Your task to perform on an android device: set the stopwatch Image 0: 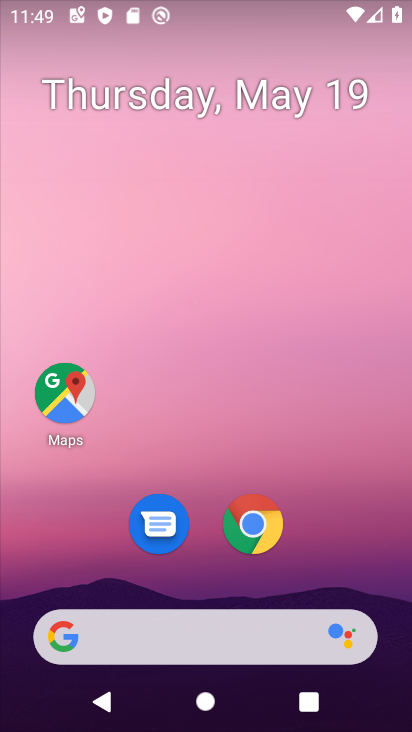
Step 0: drag from (236, 417) to (234, 55)
Your task to perform on an android device: set the stopwatch Image 1: 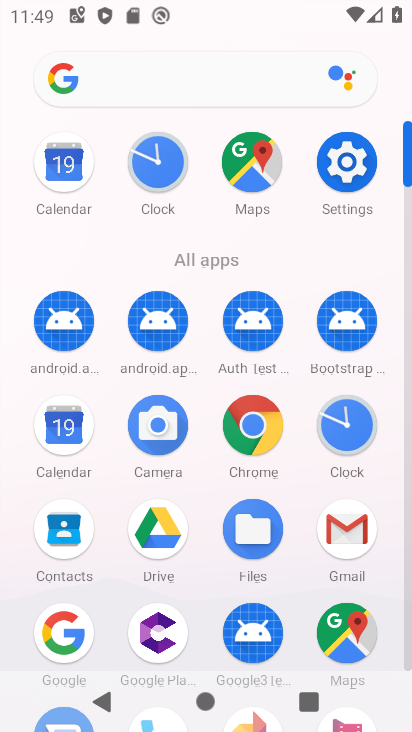
Step 1: click (165, 168)
Your task to perform on an android device: set the stopwatch Image 2: 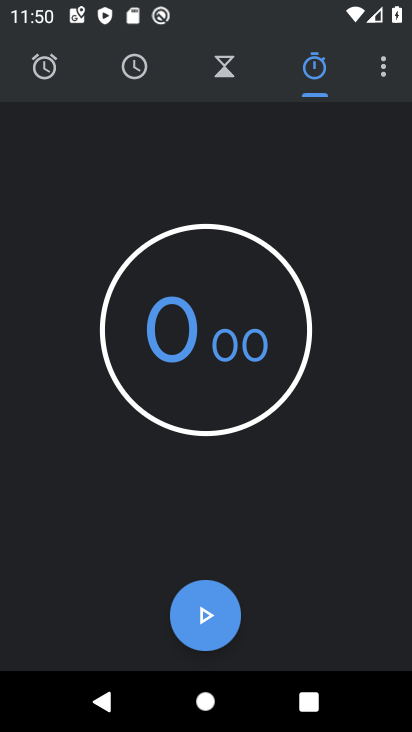
Step 2: click (310, 69)
Your task to perform on an android device: set the stopwatch Image 3: 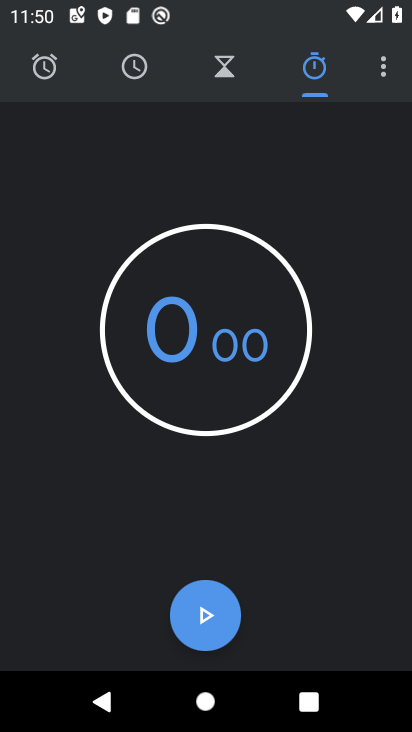
Step 3: task complete